Your task to perform on an android device: turn pop-ups off in chrome Image 0: 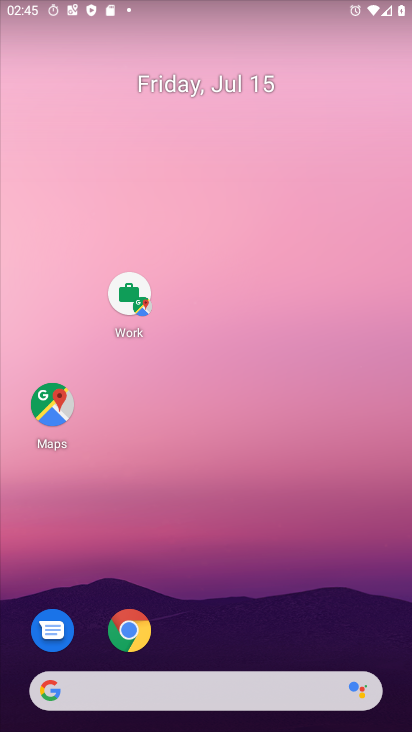
Step 0: click (140, 627)
Your task to perform on an android device: turn pop-ups off in chrome Image 1: 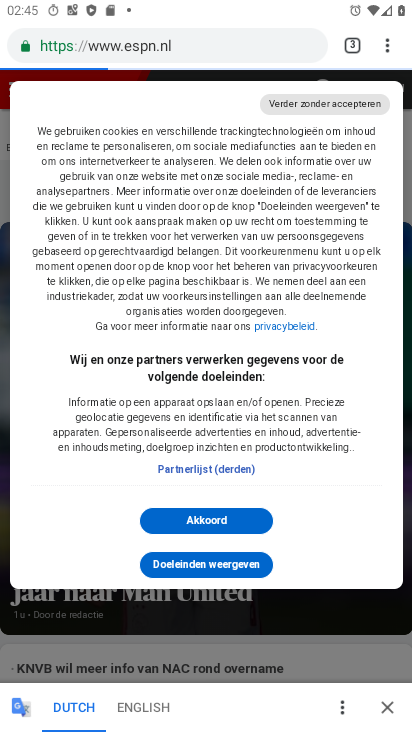
Step 1: click (381, 43)
Your task to perform on an android device: turn pop-ups off in chrome Image 2: 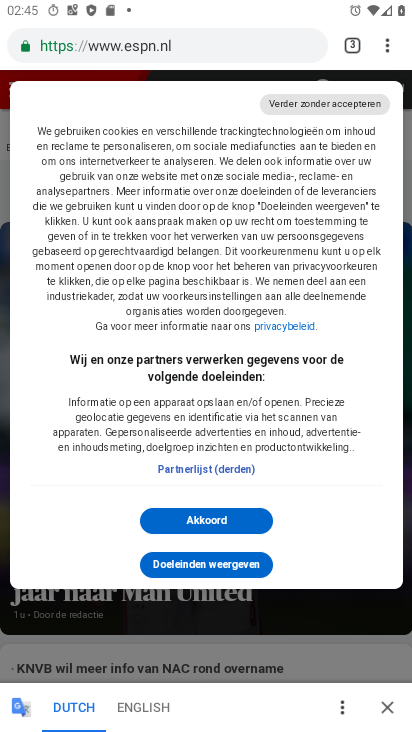
Step 2: click (382, 48)
Your task to perform on an android device: turn pop-ups off in chrome Image 3: 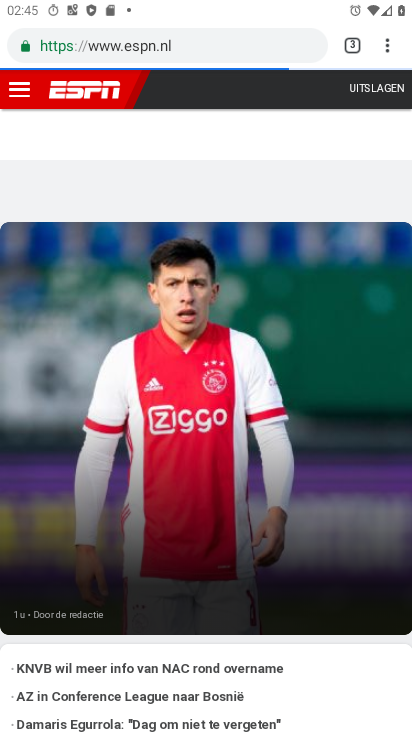
Step 3: drag from (380, 46) to (226, 505)
Your task to perform on an android device: turn pop-ups off in chrome Image 4: 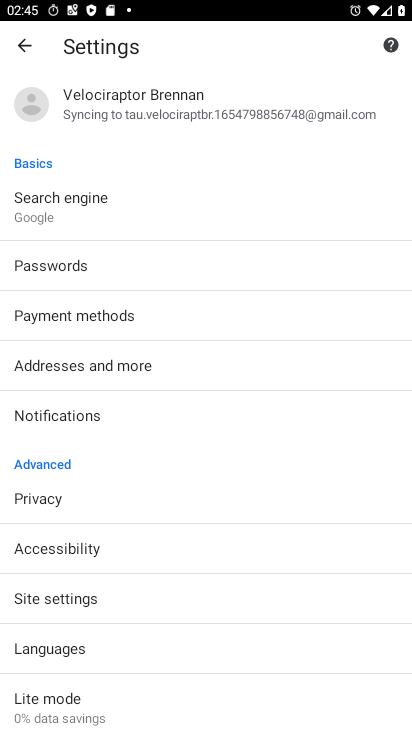
Step 4: click (106, 597)
Your task to perform on an android device: turn pop-ups off in chrome Image 5: 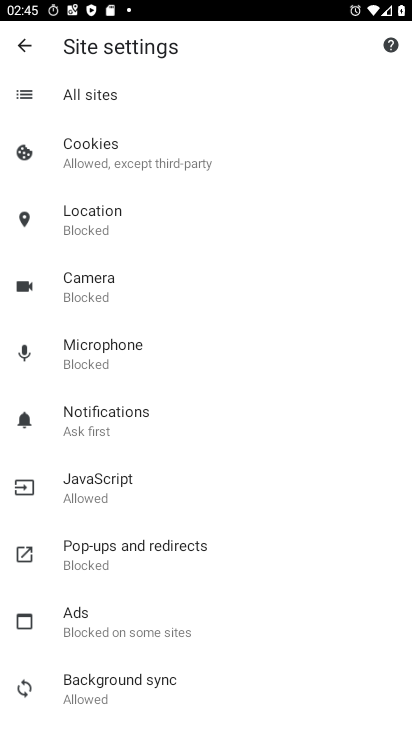
Step 5: click (150, 557)
Your task to perform on an android device: turn pop-ups off in chrome Image 6: 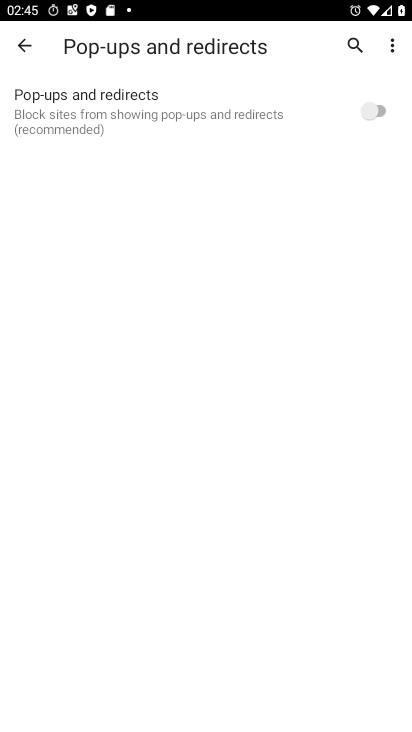
Step 6: task complete